Your task to perform on an android device: Open Wikipedia Image 0: 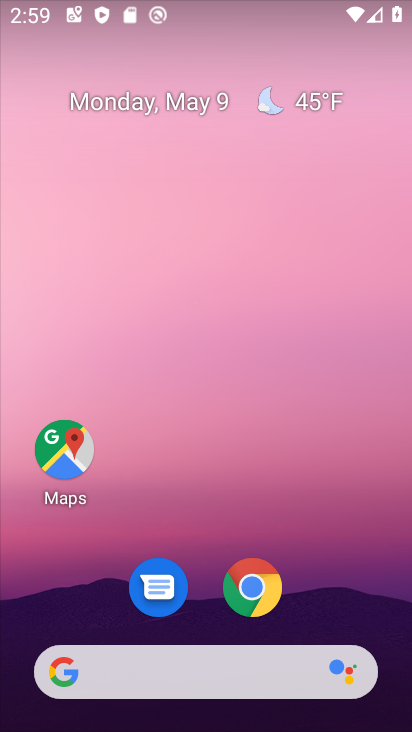
Step 0: click (252, 603)
Your task to perform on an android device: Open Wikipedia Image 1: 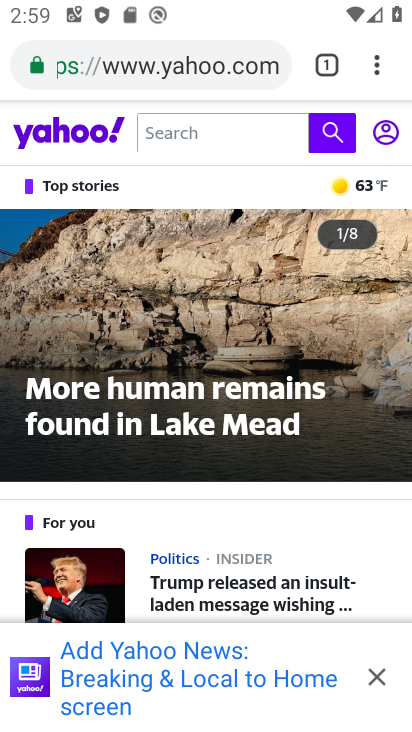
Step 1: click (323, 57)
Your task to perform on an android device: Open Wikipedia Image 2: 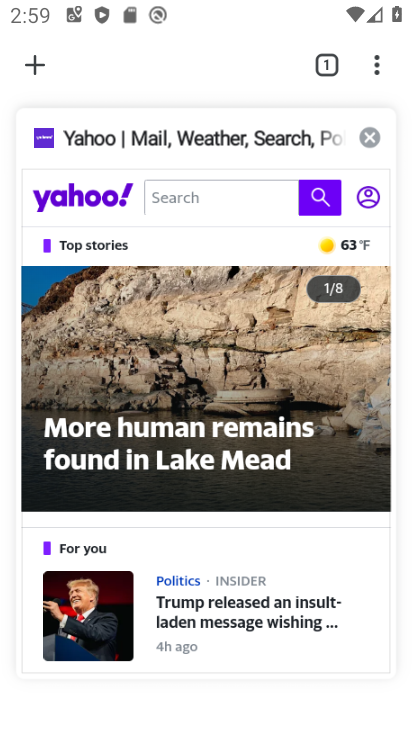
Step 2: click (45, 73)
Your task to perform on an android device: Open Wikipedia Image 3: 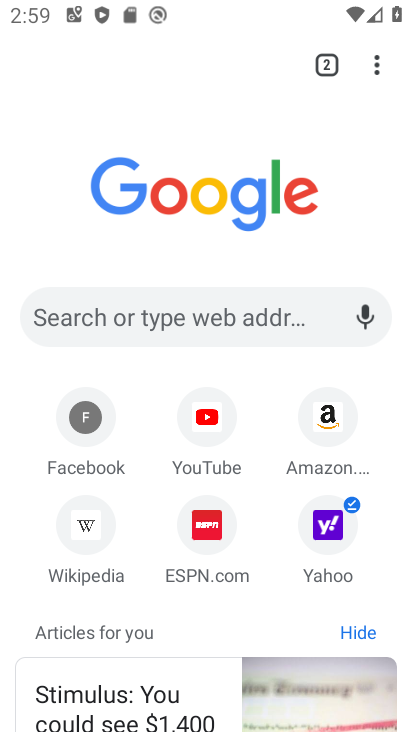
Step 3: click (86, 551)
Your task to perform on an android device: Open Wikipedia Image 4: 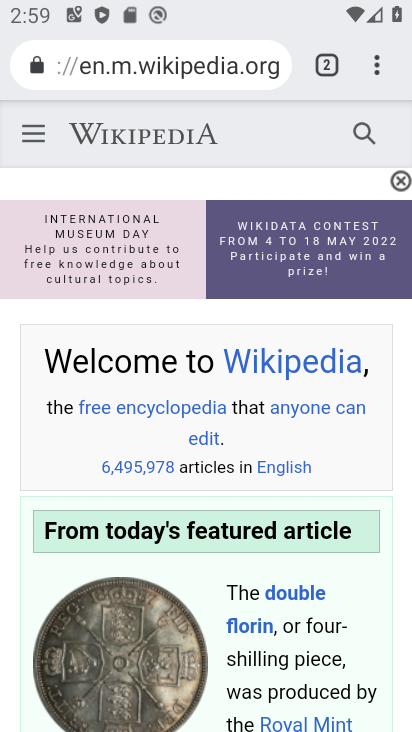
Step 4: task complete